Your task to perform on an android device: turn on bluetooth scan Image 0: 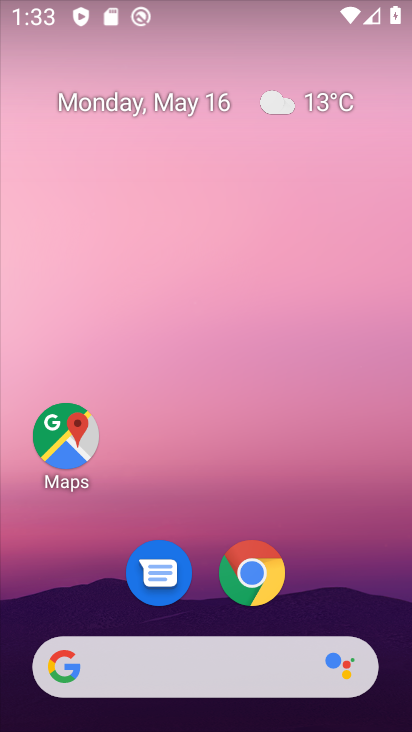
Step 0: drag from (266, 166) to (354, 90)
Your task to perform on an android device: turn on bluetooth scan Image 1: 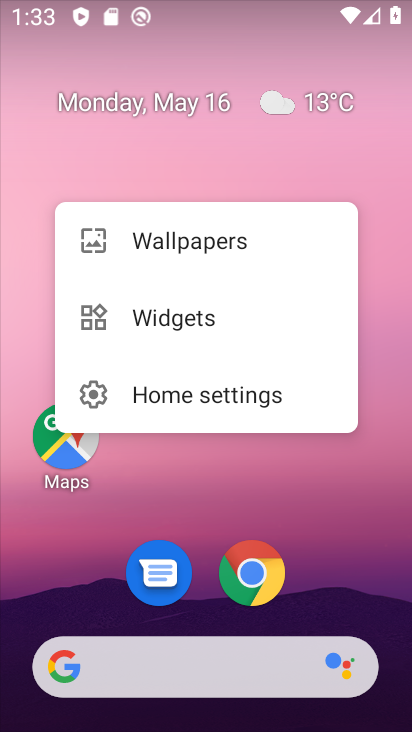
Step 1: drag from (351, 427) to (288, 128)
Your task to perform on an android device: turn on bluetooth scan Image 2: 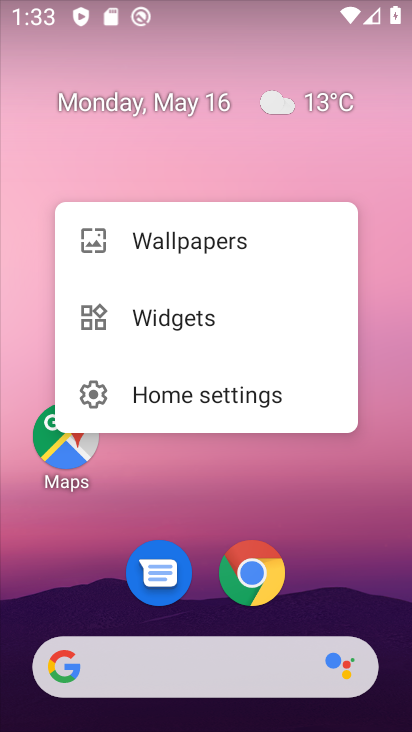
Step 2: drag from (206, 625) to (199, 37)
Your task to perform on an android device: turn on bluetooth scan Image 3: 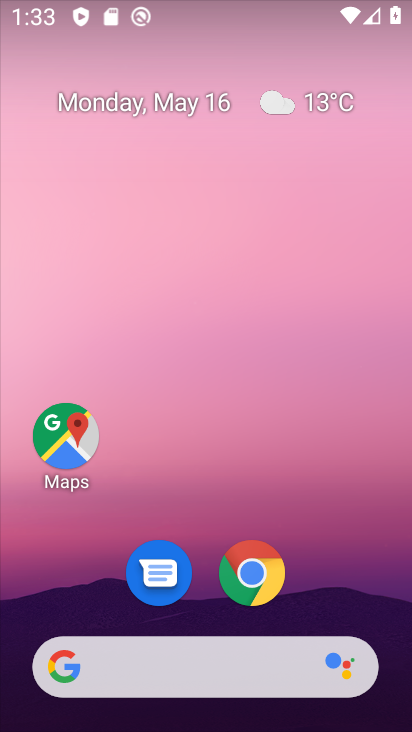
Step 3: drag from (218, 623) to (120, 34)
Your task to perform on an android device: turn on bluetooth scan Image 4: 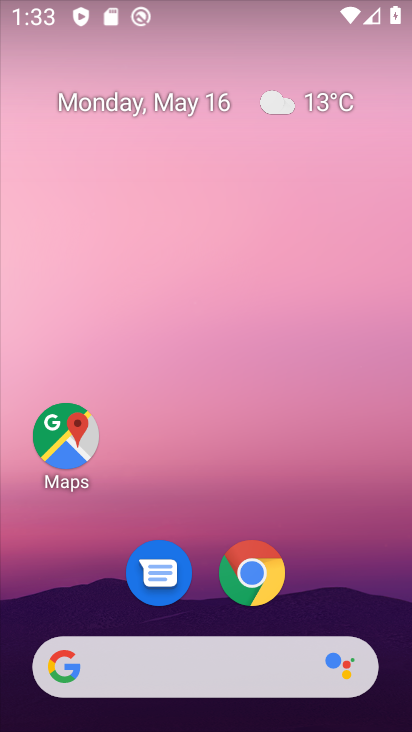
Step 4: drag from (225, 606) to (196, 132)
Your task to perform on an android device: turn on bluetooth scan Image 5: 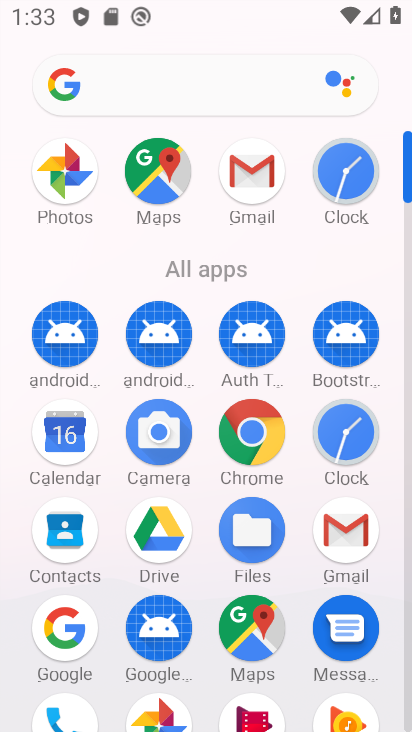
Step 5: drag from (121, 413) to (102, 183)
Your task to perform on an android device: turn on bluetooth scan Image 6: 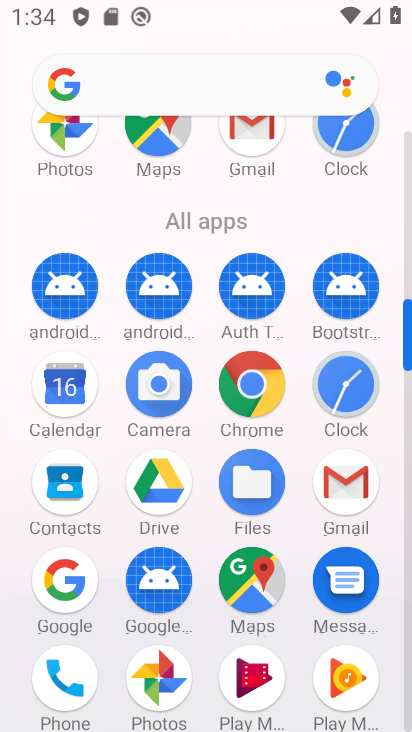
Step 6: drag from (185, 569) to (184, 83)
Your task to perform on an android device: turn on bluetooth scan Image 7: 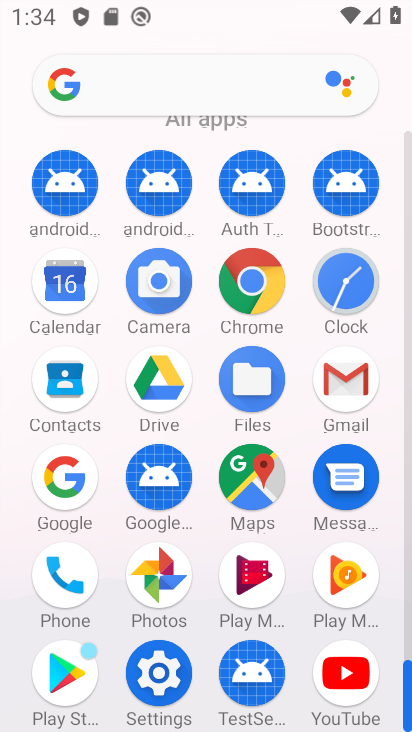
Step 7: click (166, 653)
Your task to perform on an android device: turn on bluetooth scan Image 8: 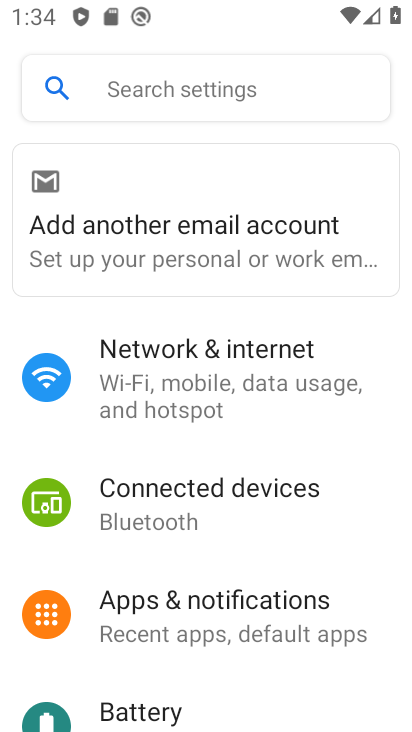
Step 8: drag from (166, 653) to (247, 164)
Your task to perform on an android device: turn on bluetooth scan Image 9: 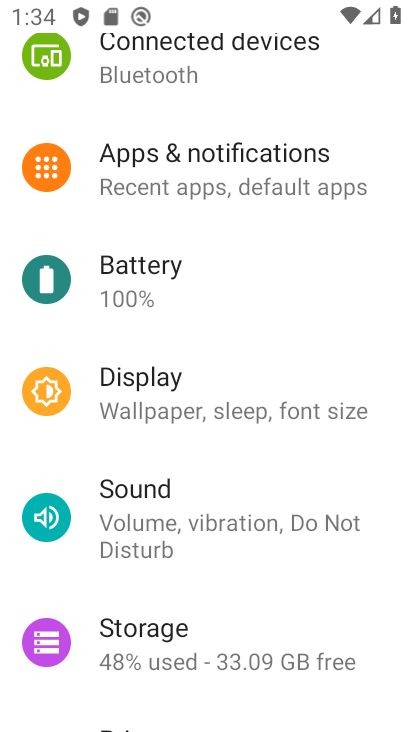
Step 9: drag from (139, 627) to (197, 216)
Your task to perform on an android device: turn on bluetooth scan Image 10: 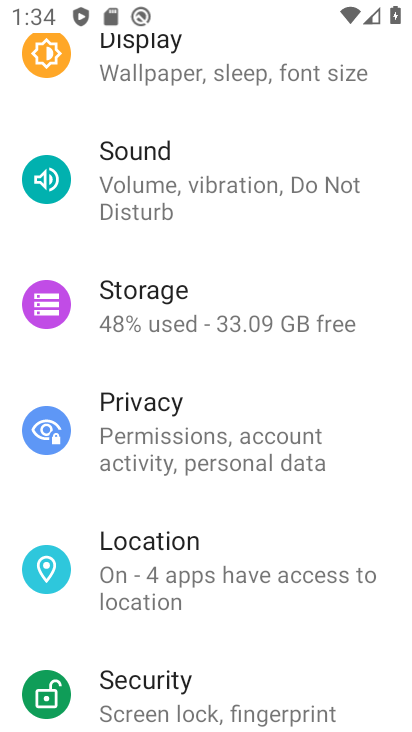
Step 10: click (178, 533)
Your task to perform on an android device: turn on bluetooth scan Image 11: 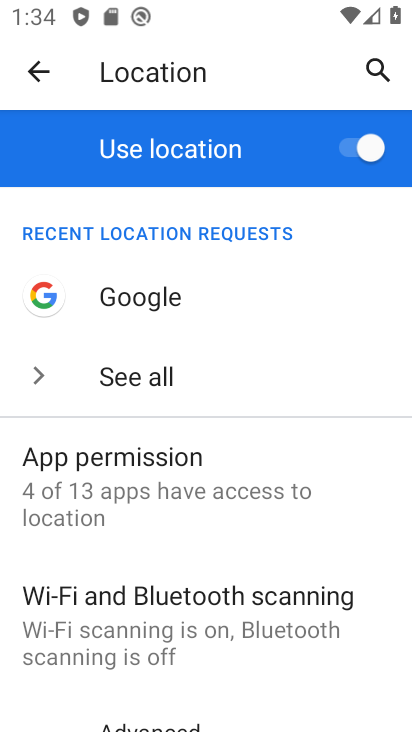
Step 11: click (175, 617)
Your task to perform on an android device: turn on bluetooth scan Image 12: 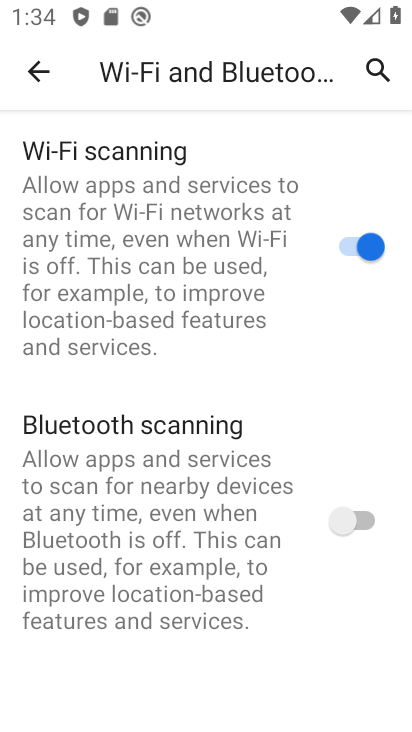
Step 12: drag from (175, 617) to (197, 274)
Your task to perform on an android device: turn on bluetooth scan Image 13: 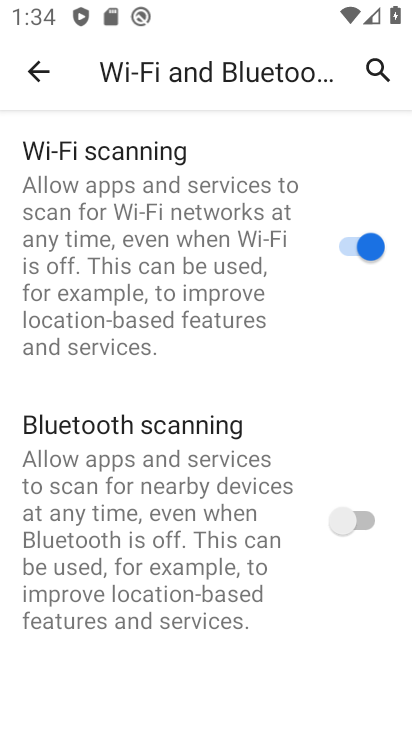
Step 13: click (360, 510)
Your task to perform on an android device: turn on bluetooth scan Image 14: 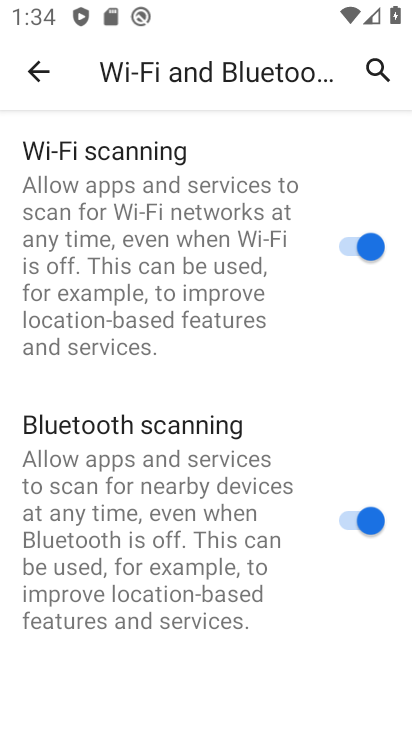
Step 14: task complete